Your task to perform on an android device: open app "Indeed Job Search" (install if not already installed), go to login, and select forgot password Image 0: 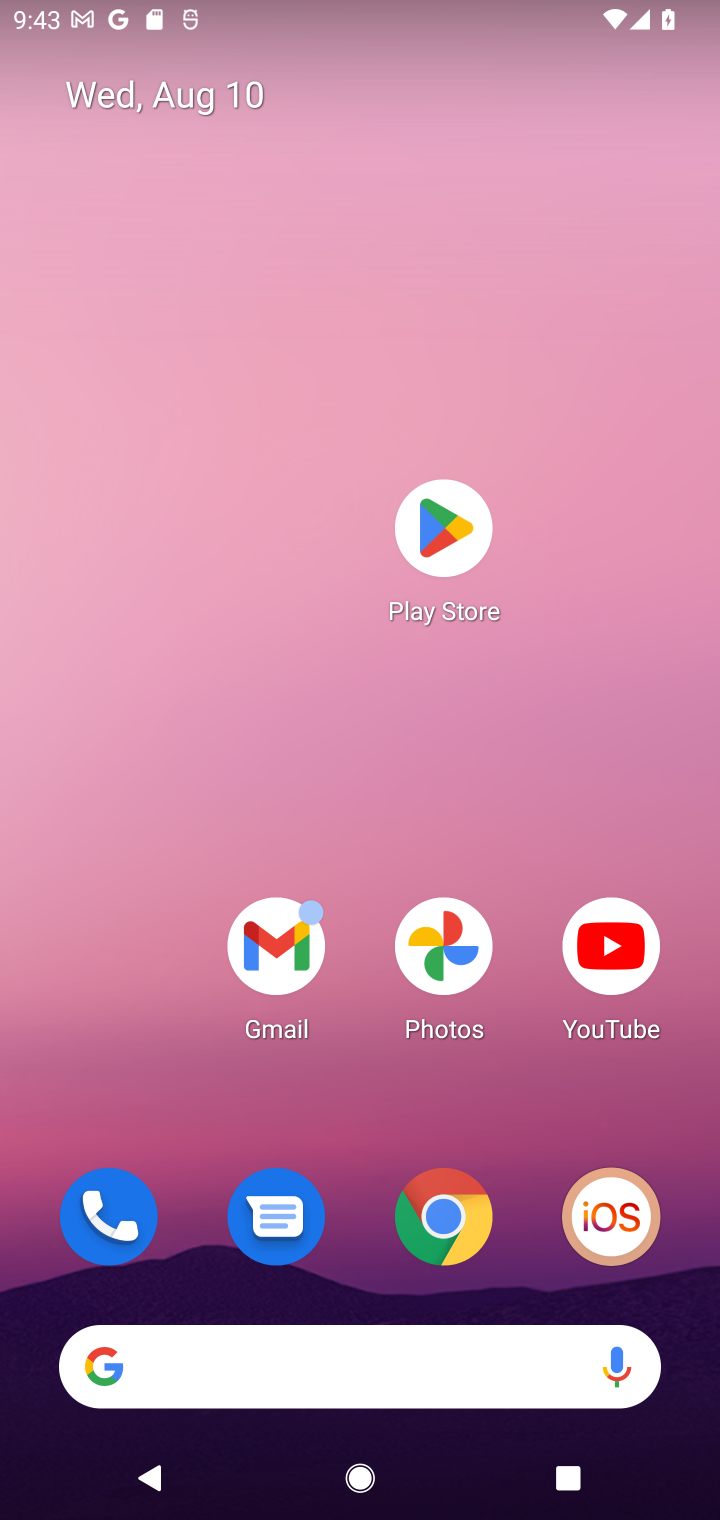
Step 0: click (430, 513)
Your task to perform on an android device: open app "Indeed Job Search" (install if not already installed), go to login, and select forgot password Image 1: 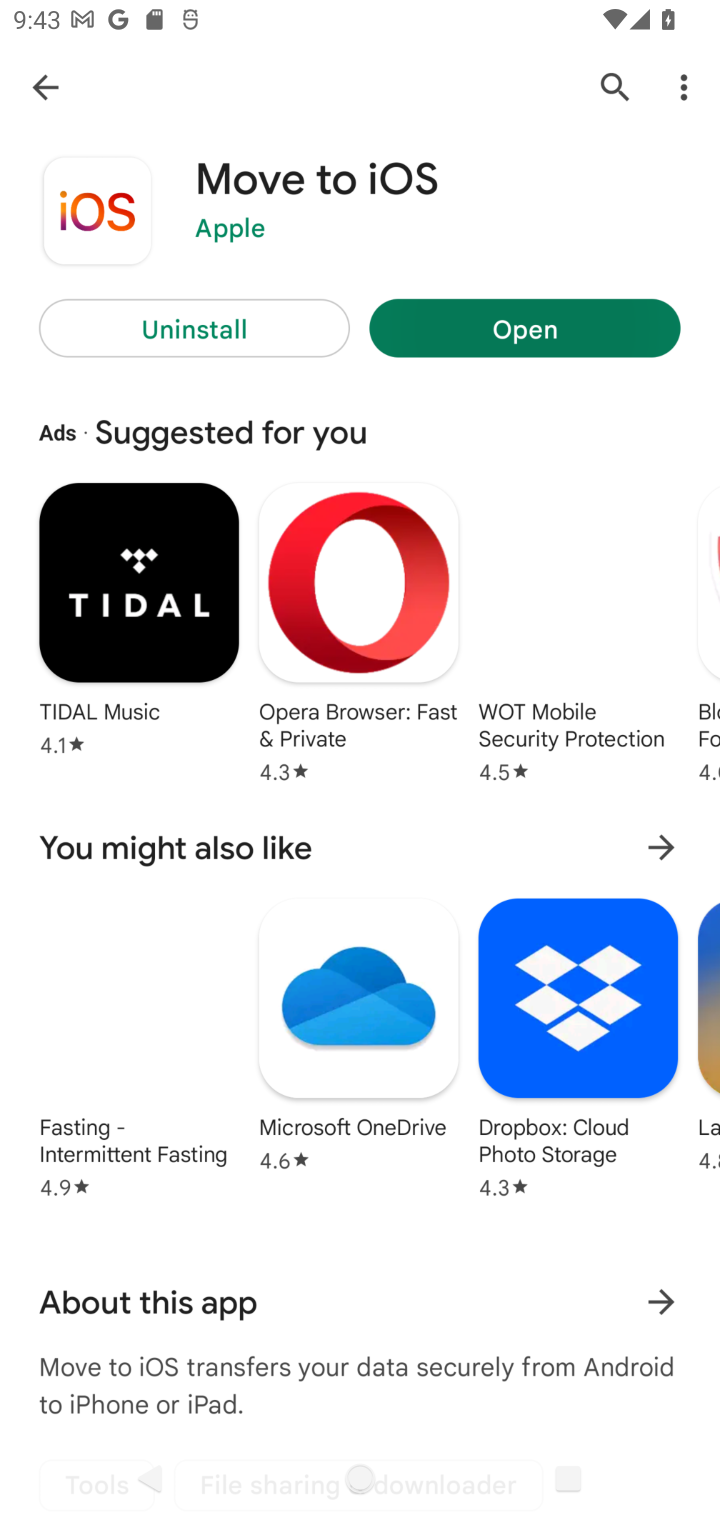
Step 1: click (430, 519)
Your task to perform on an android device: open app "Indeed Job Search" (install if not already installed), go to login, and select forgot password Image 2: 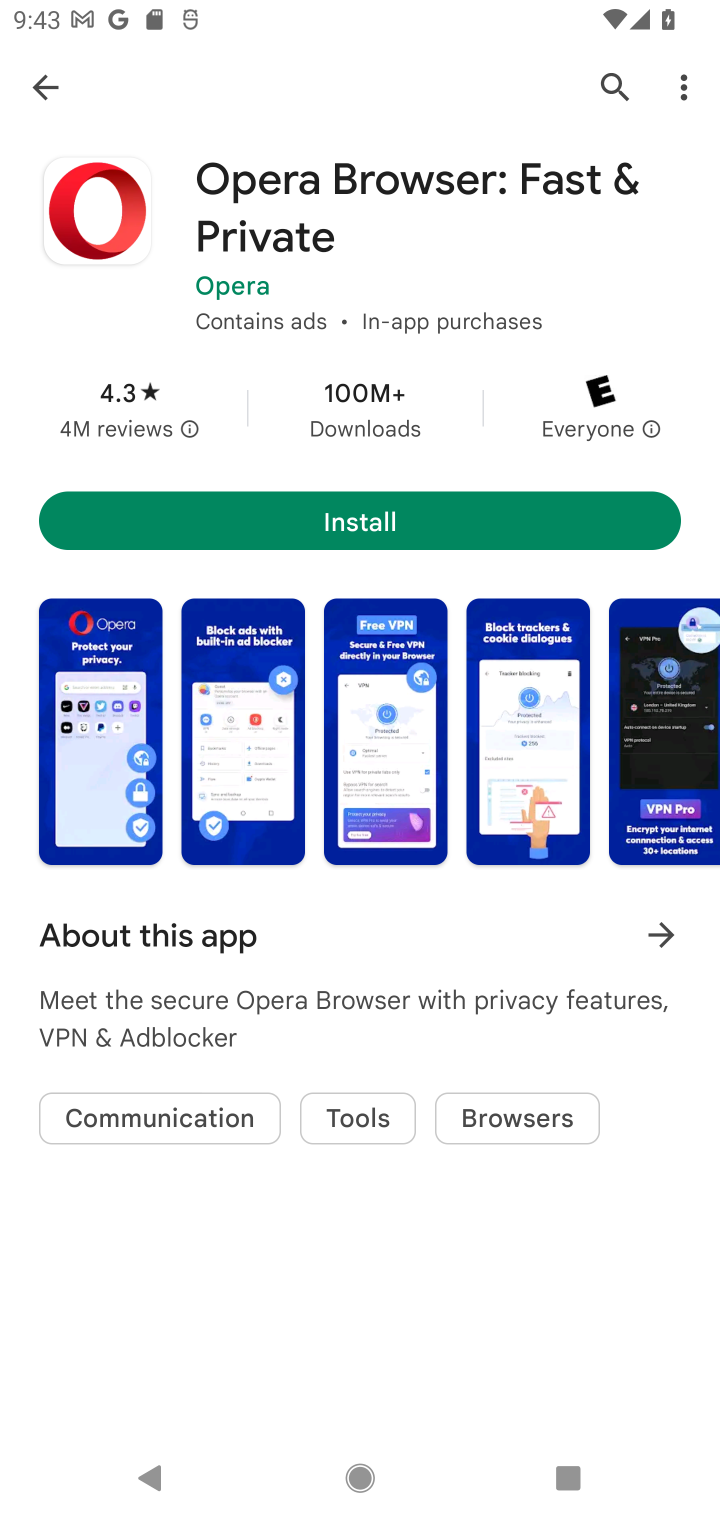
Step 2: click (612, 82)
Your task to perform on an android device: open app "Indeed Job Search" (install if not already installed), go to login, and select forgot password Image 3: 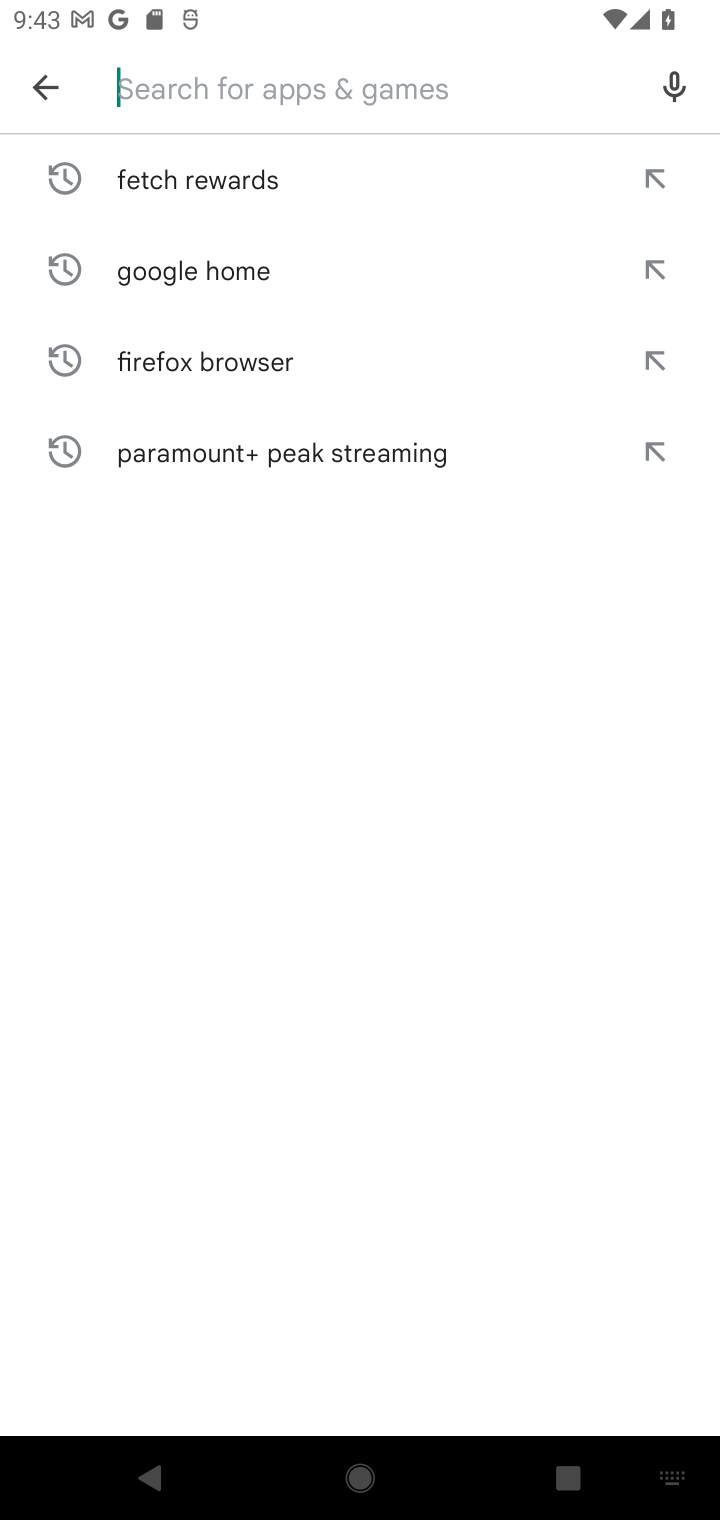
Step 3: type "Indeed Job Search"
Your task to perform on an android device: open app "Indeed Job Search" (install if not already installed), go to login, and select forgot password Image 4: 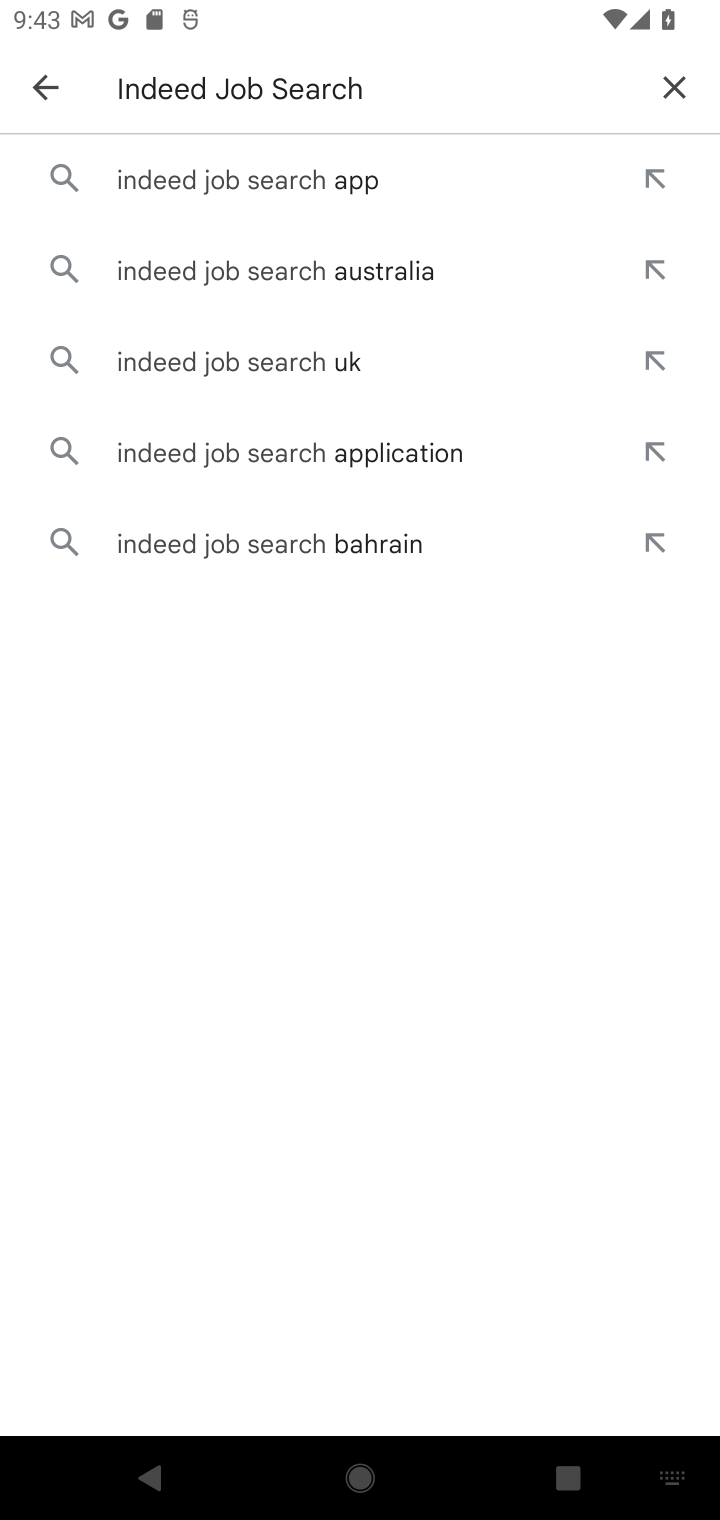
Step 4: click (335, 166)
Your task to perform on an android device: open app "Indeed Job Search" (install if not already installed), go to login, and select forgot password Image 5: 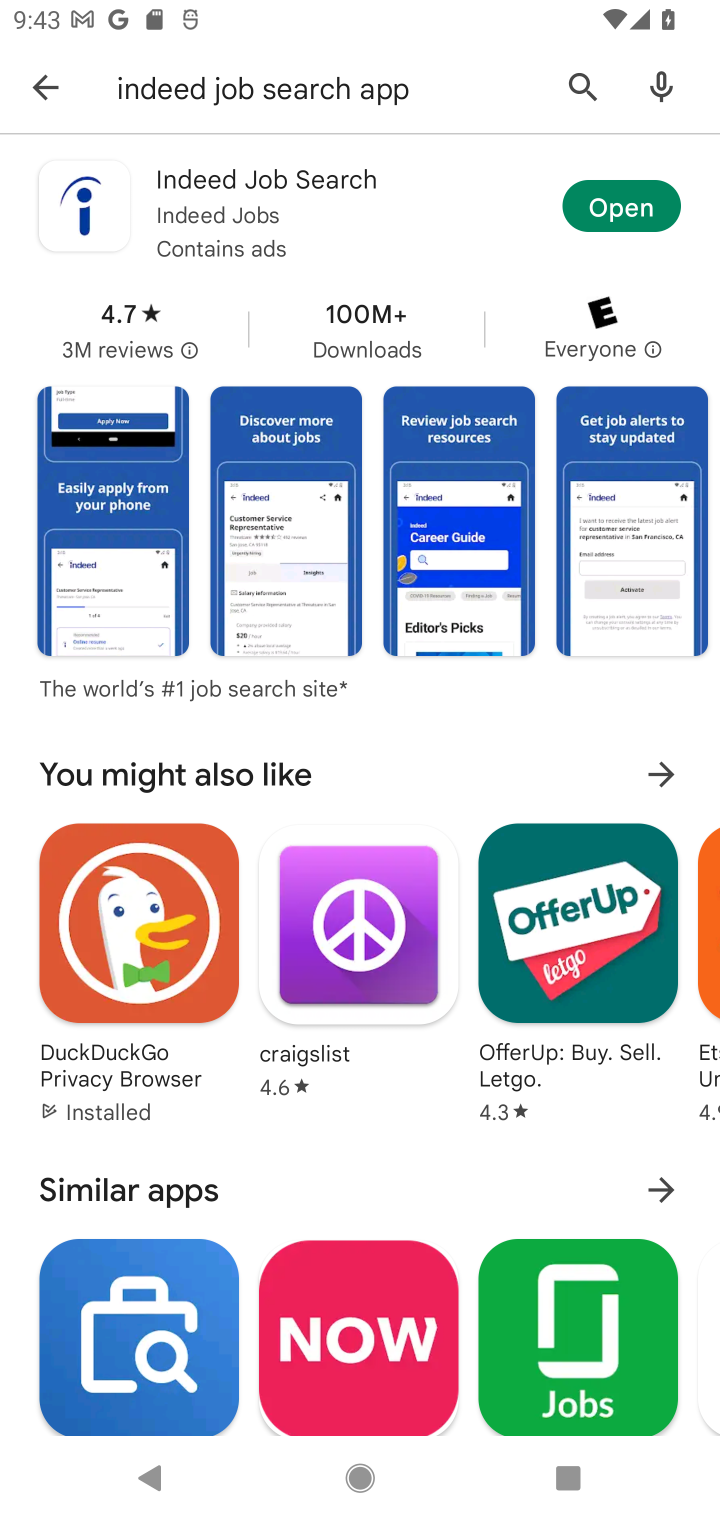
Step 5: click (652, 200)
Your task to perform on an android device: open app "Indeed Job Search" (install if not already installed), go to login, and select forgot password Image 6: 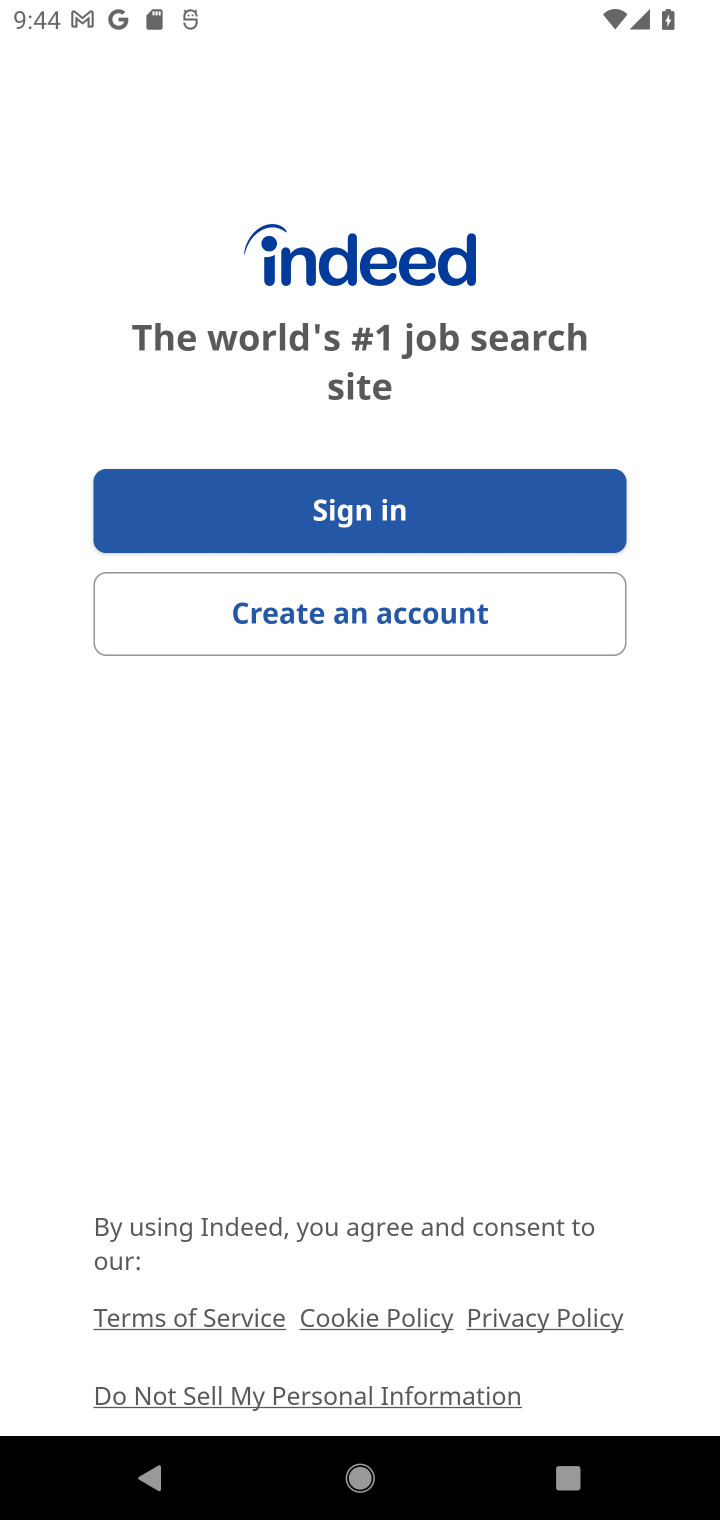
Step 6: click (408, 520)
Your task to perform on an android device: open app "Indeed Job Search" (install if not already installed), go to login, and select forgot password Image 7: 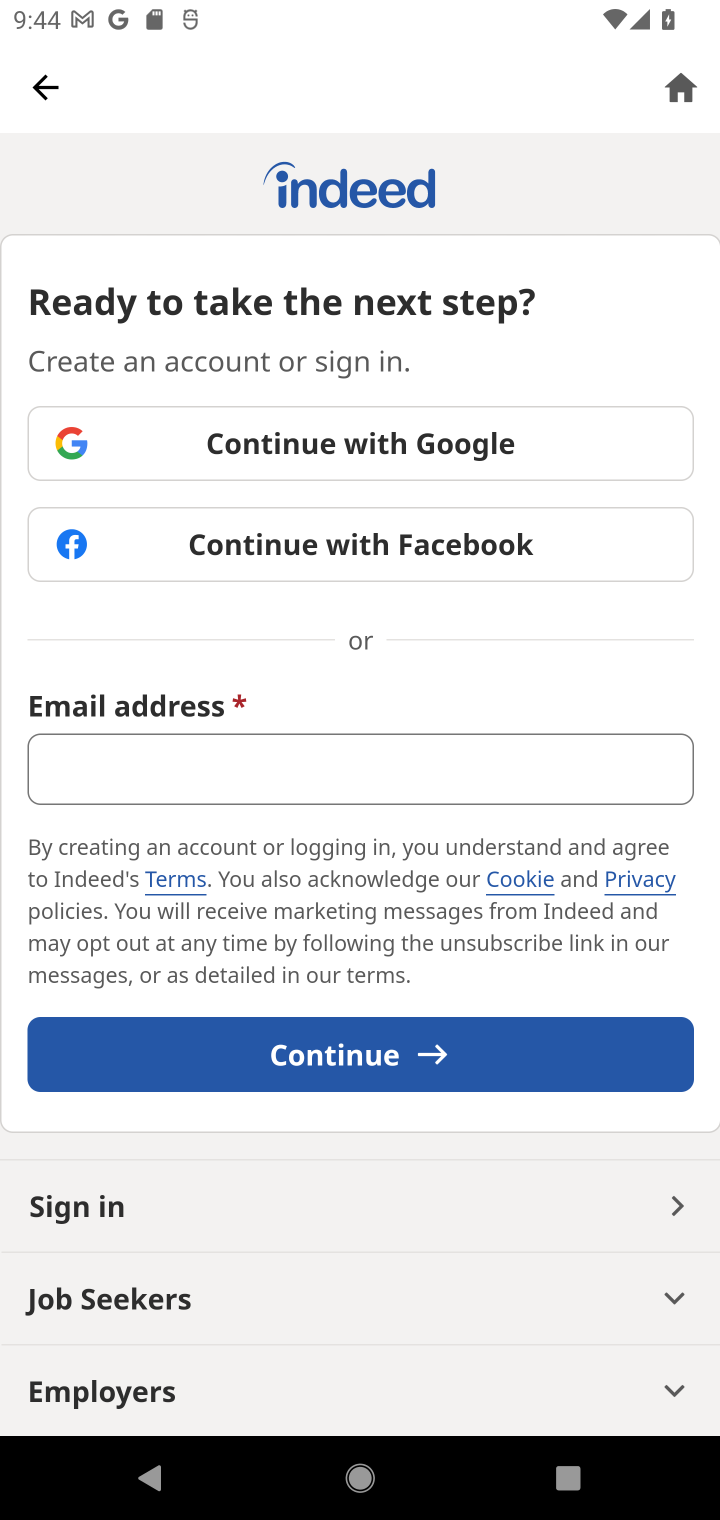
Step 7: task complete